Your task to perform on an android device: add a contact in the contacts app Image 0: 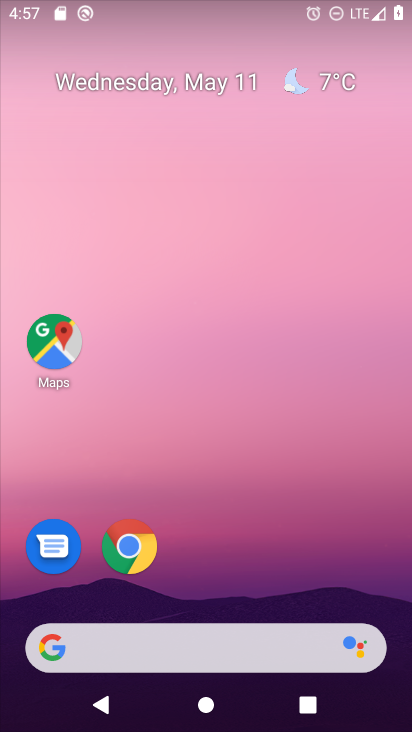
Step 0: drag from (328, 621) to (323, 59)
Your task to perform on an android device: add a contact in the contacts app Image 1: 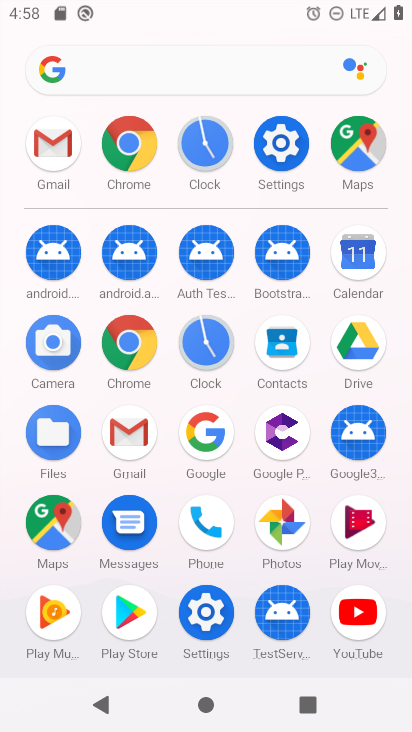
Step 1: click (275, 348)
Your task to perform on an android device: add a contact in the contacts app Image 2: 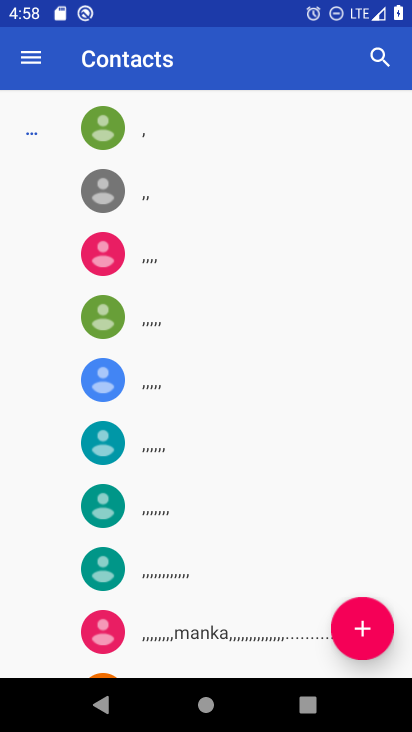
Step 2: click (371, 626)
Your task to perform on an android device: add a contact in the contacts app Image 3: 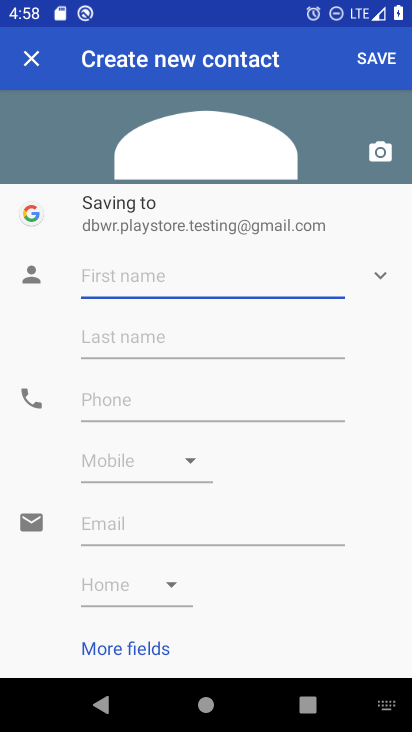
Step 3: type "jhgfdcvhhhh"
Your task to perform on an android device: add a contact in the contacts app Image 4: 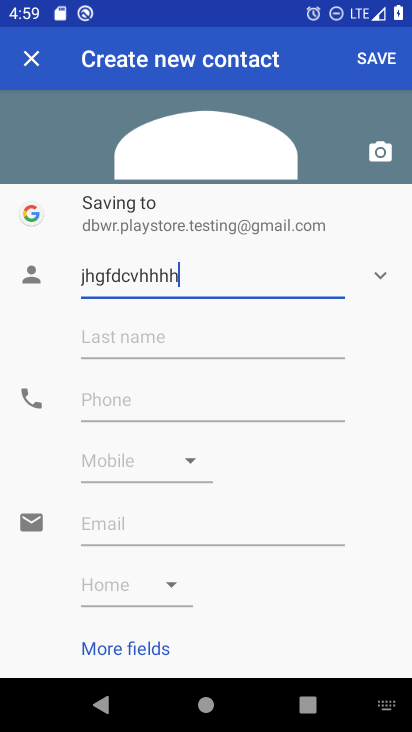
Step 4: click (246, 402)
Your task to perform on an android device: add a contact in the contacts app Image 5: 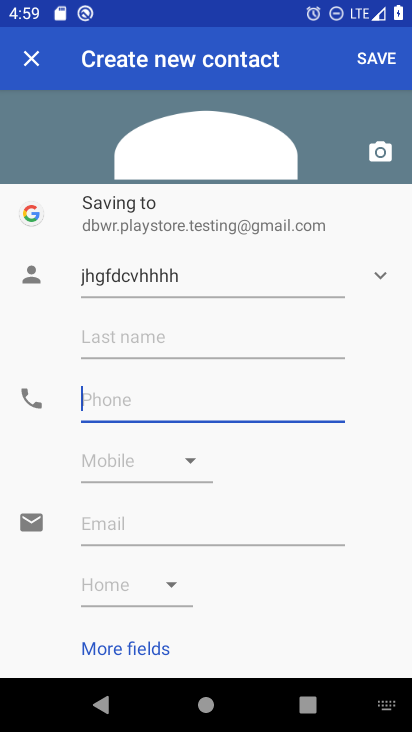
Step 5: type "9897878767"
Your task to perform on an android device: add a contact in the contacts app Image 6: 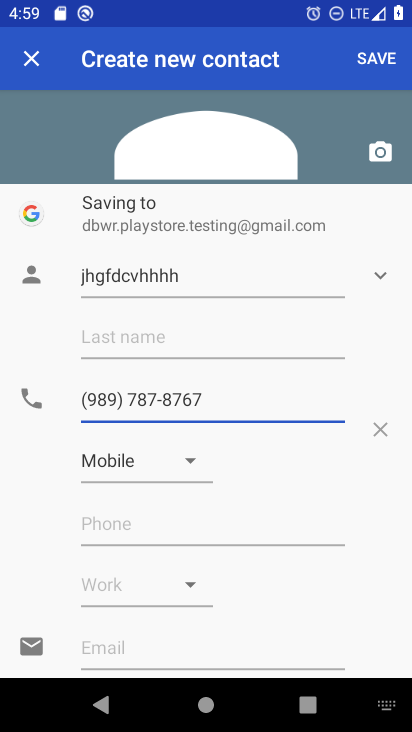
Step 6: click (382, 54)
Your task to perform on an android device: add a contact in the contacts app Image 7: 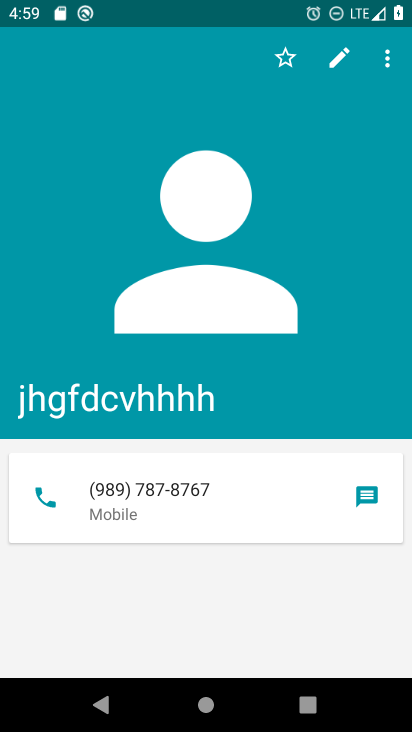
Step 7: task complete